Your task to perform on an android device: Look up the best rated 3d printer on Ali Express Image 0: 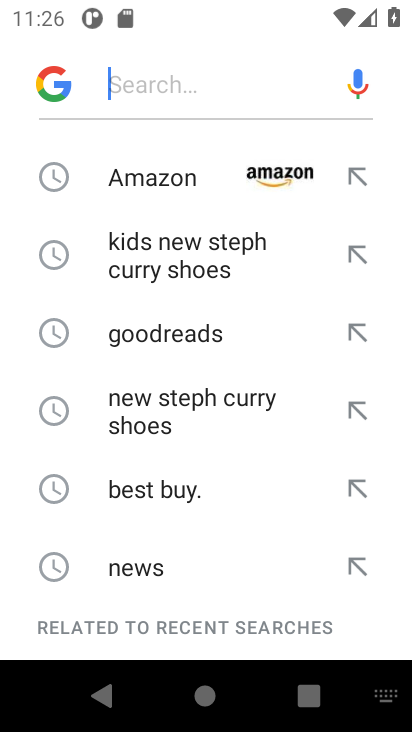
Step 0: click (178, 241)
Your task to perform on an android device: Look up the best rated 3d printer on Ali Express Image 1: 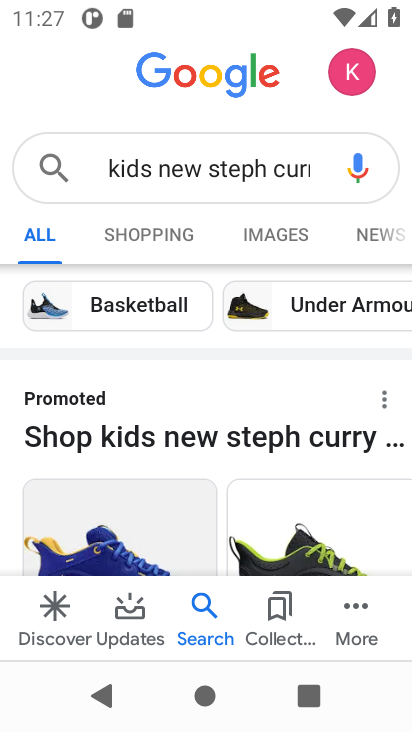
Step 1: click (237, 230)
Your task to perform on an android device: Look up the best rated 3d printer on Ali Express Image 2: 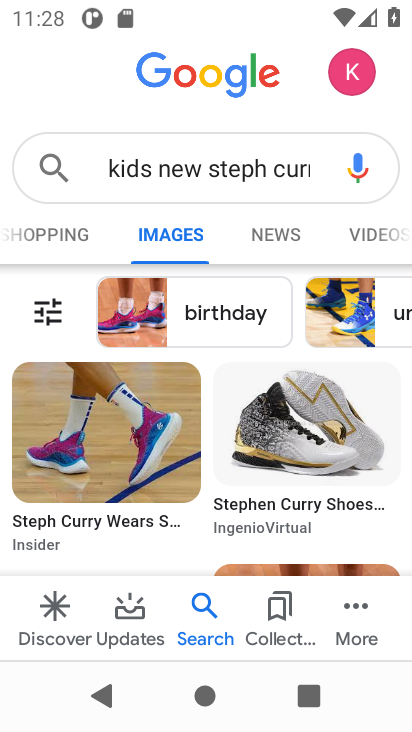
Step 2: task complete